Your task to perform on an android device: turn off notifications in google photos Image 0: 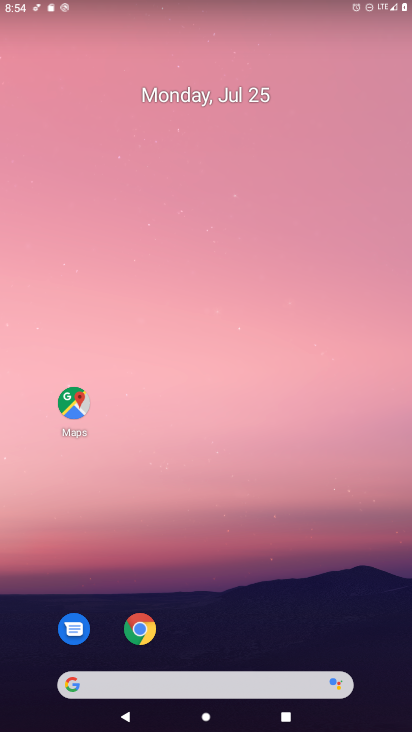
Step 0: drag from (158, 681) to (266, 12)
Your task to perform on an android device: turn off notifications in google photos Image 1: 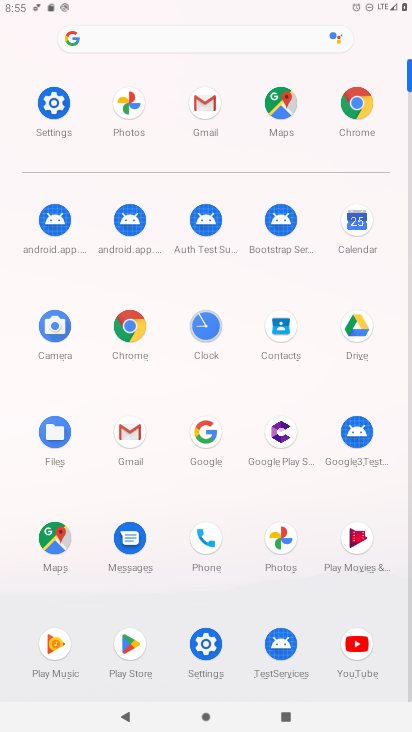
Step 1: click (127, 99)
Your task to perform on an android device: turn off notifications in google photos Image 2: 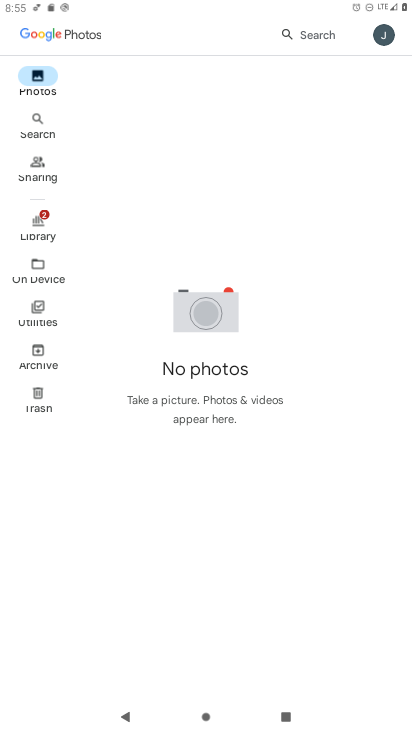
Step 2: click (387, 37)
Your task to perform on an android device: turn off notifications in google photos Image 3: 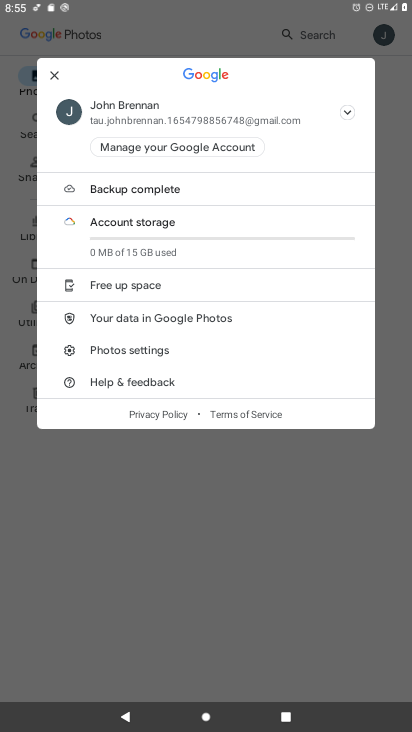
Step 3: click (131, 347)
Your task to perform on an android device: turn off notifications in google photos Image 4: 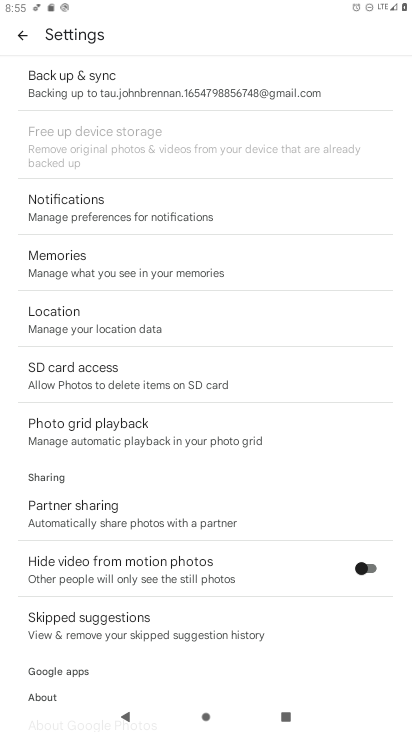
Step 4: click (147, 215)
Your task to perform on an android device: turn off notifications in google photos Image 5: 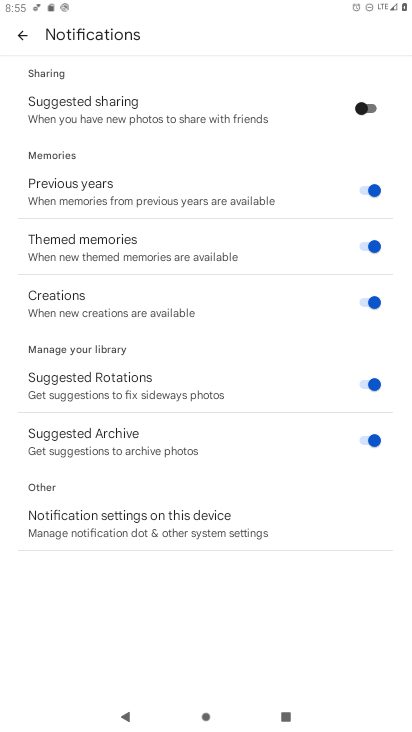
Step 5: click (162, 525)
Your task to perform on an android device: turn off notifications in google photos Image 6: 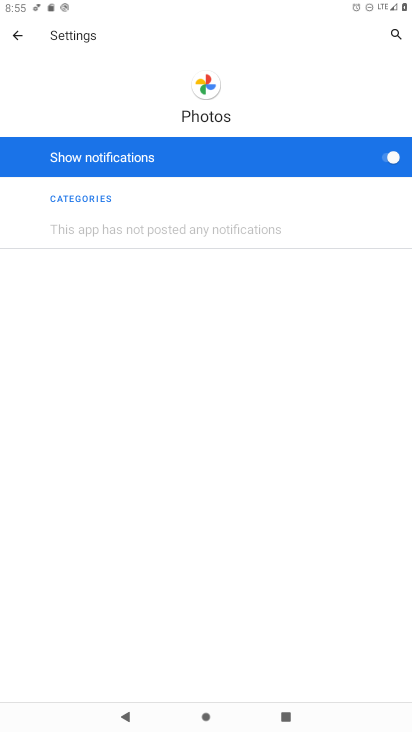
Step 6: click (383, 165)
Your task to perform on an android device: turn off notifications in google photos Image 7: 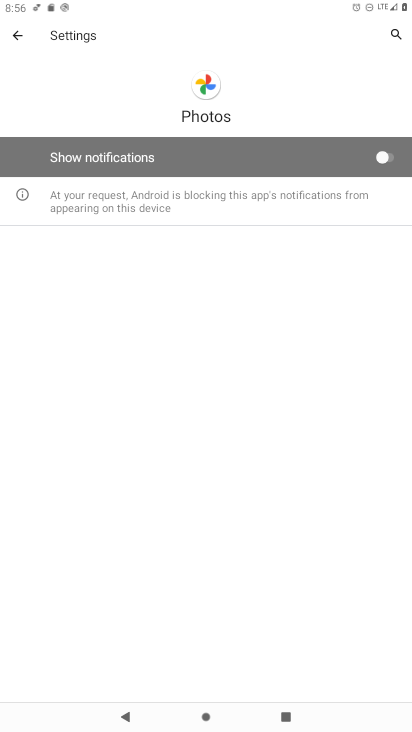
Step 7: task complete